Your task to perform on an android device: Go to location settings Image 0: 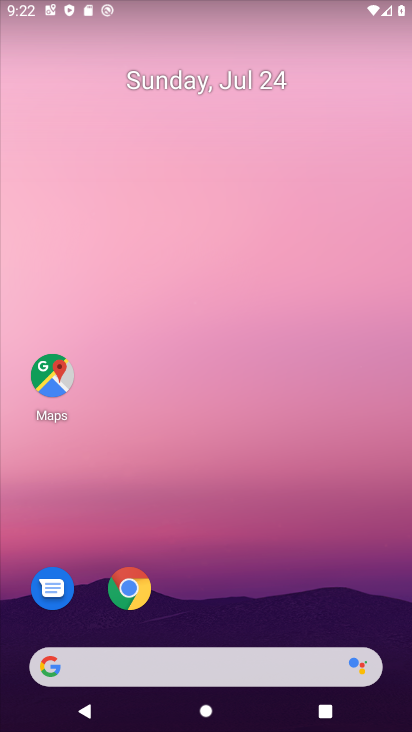
Step 0: drag from (244, 635) to (239, 4)
Your task to perform on an android device: Go to location settings Image 1: 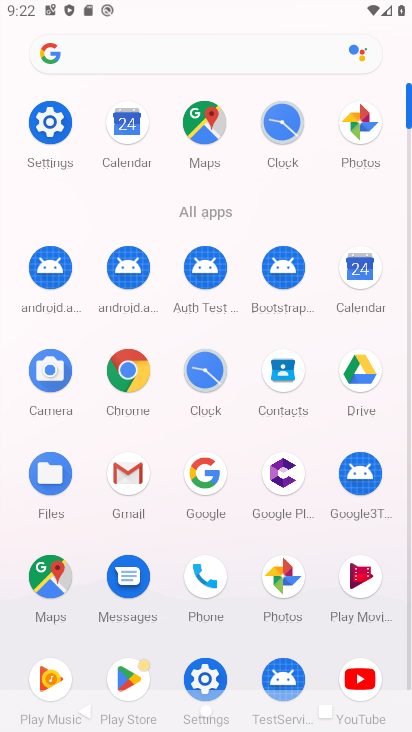
Step 1: click (47, 121)
Your task to perform on an android device: Go to location settings Image 2: 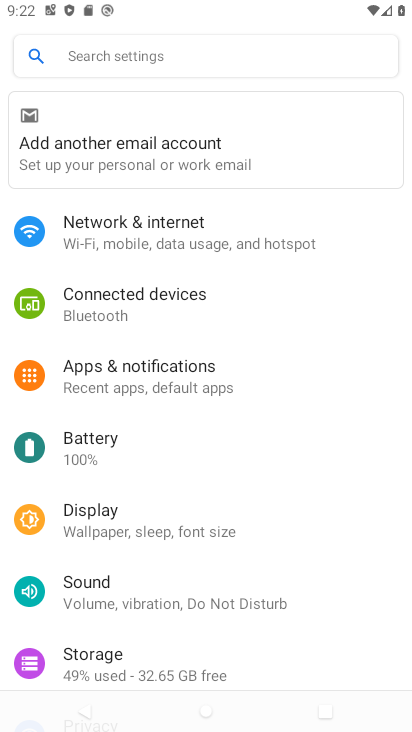
Step 2: drag from (327, 623) to (334, 272)
Your task to perform on an android device: Go to location settings Image 3: 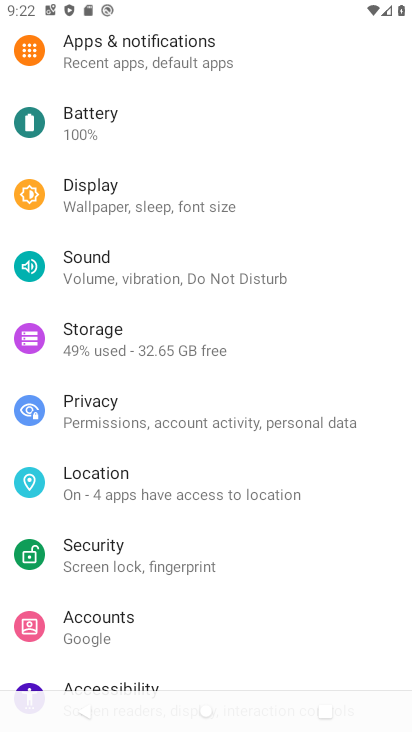
Step 3: click (68, 475)
Your task to perform on an android device: Go to location settings Image 4: 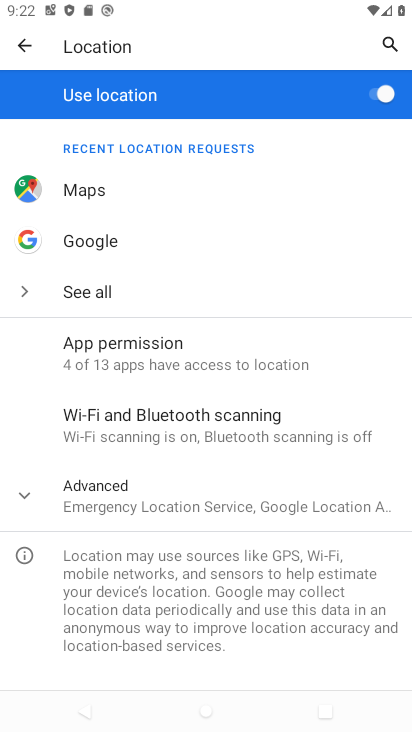
Step 4: task complete